Your task to perform on an android device: uninstall "Microsoft Excel" Image 0: 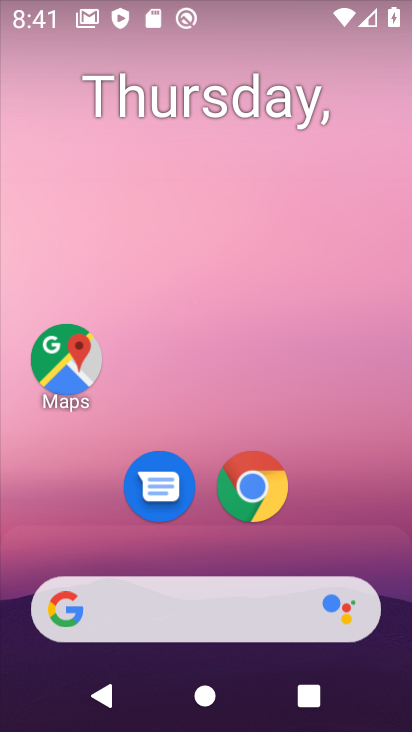
Step 0: drag from (350, 562) to (7, 221)
Your task to perform on an android device: uninstall "Microsoft Excel" Image 1: 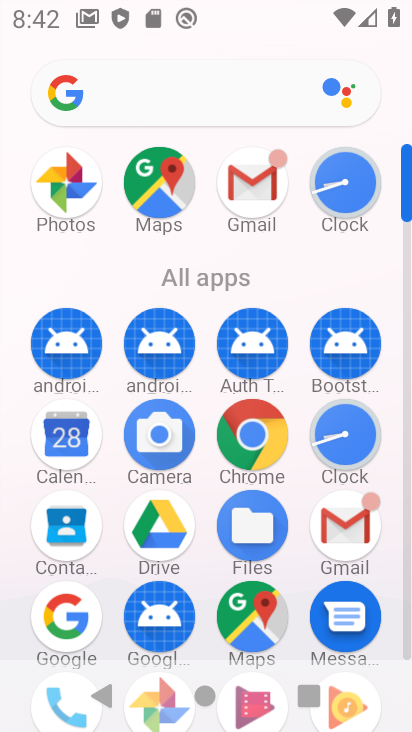
Step 1: drag from (404, 649) to (358, 217)
Your task to perform on an android device: uninstall "Microsoft Excel" Image 2: 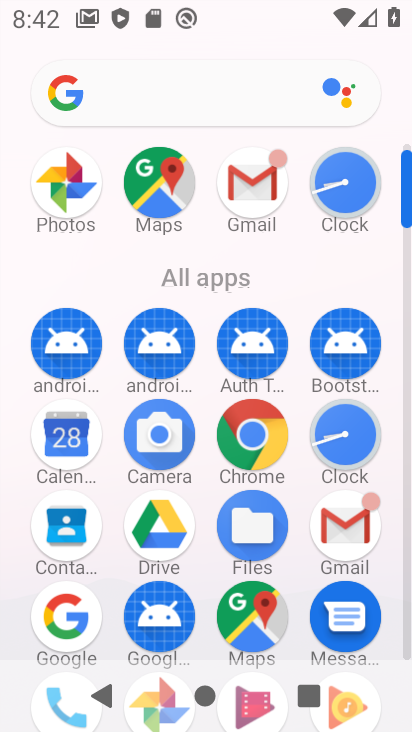
Step 2: drag from (387, 621) to (377, 141)
Your task to perform on an android device: uninstall "Microsoft Excel" Image 3: 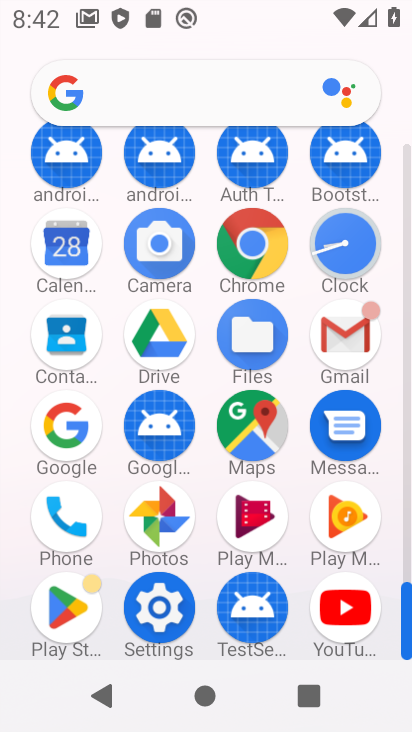
Step 3: click (53, 608)
Your task to perform on an android device: uninstall "Microsoft Excel" Image 4: 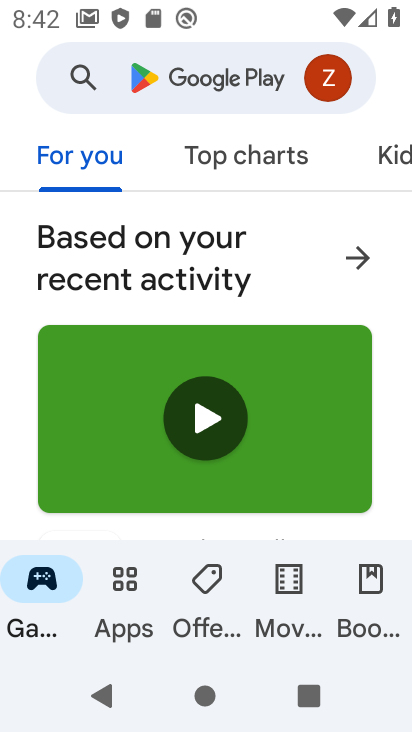
Step 4: click (270, 98)
Your task to perform on an android device: uninstall "Microsoft Excel" Image 5: 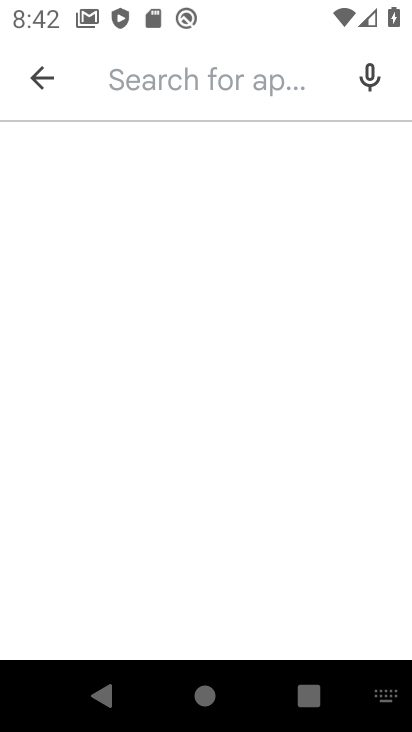
Step 5: type "Microsoft Excel""
Your task to perform on an android device: uninstall "Microsoft Excel" Image 6: 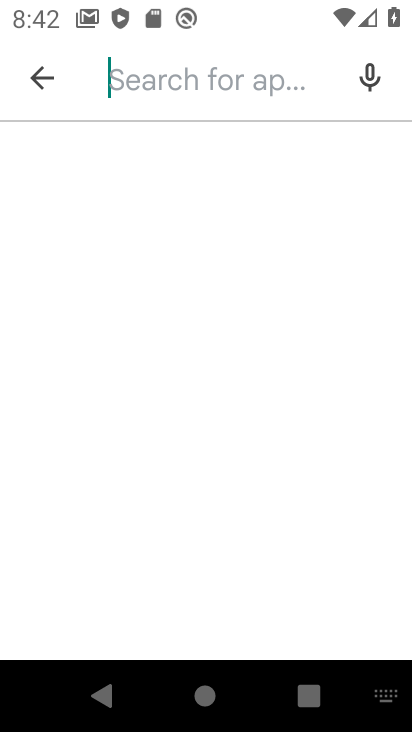
Step 6: press enter
Your task to perform on an android device: uninstall "Microsoft Excel" Image 7: 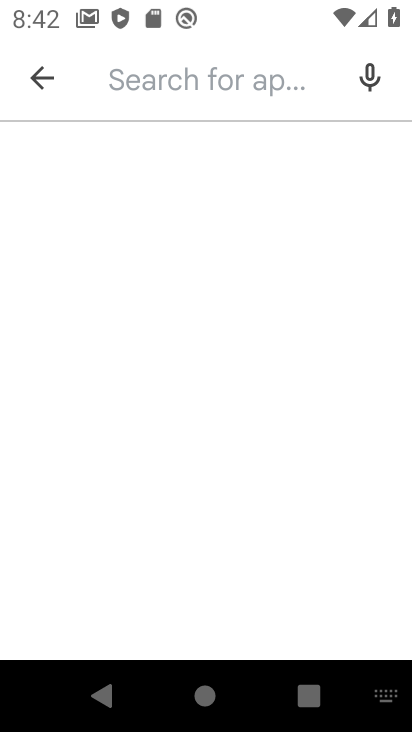
Step 7: type "Microsoft Excel""
Your task to perform on an android device: uninstall "Microsoft Excel" Image 8: 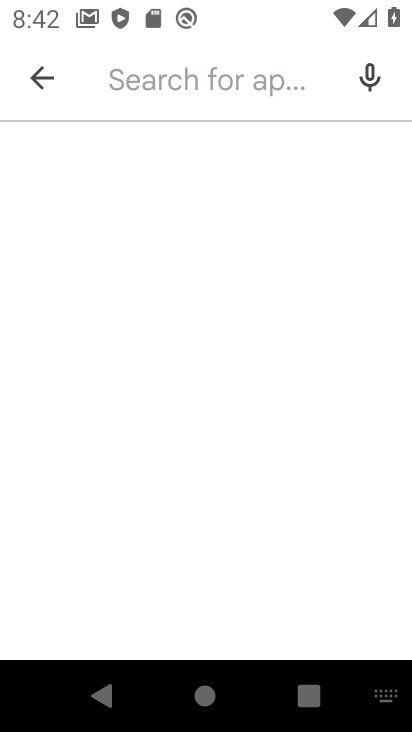
Step 8: press enter
Your task to perform on an android device: uninstall "Microsoft Excel" Image 9: 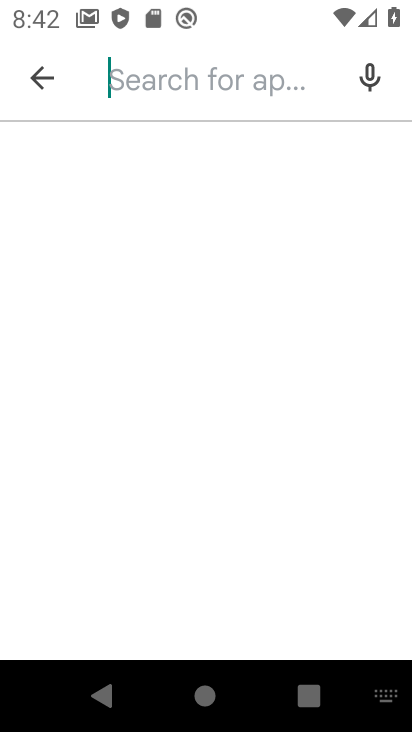
Step 9: type "microsoft excel"
Your task to perform on an android device: uninstall "Microsoft Excel" Image 10: 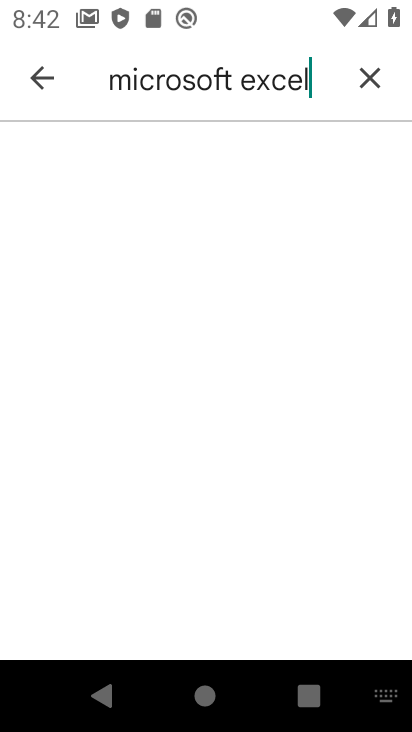
Step 10: press enter
Your task to perform on an android device: uninstall "Microsoft Excel" Image 11: 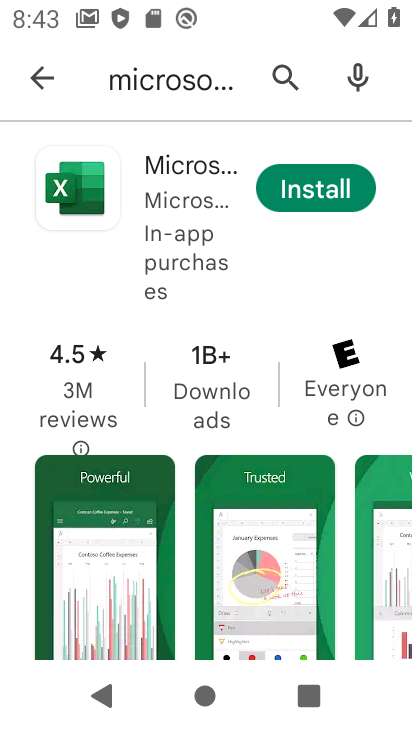
Step 11: task complete